Your task to perform on an android device: Open Google Chrome and open the bookmarks view Image 0: 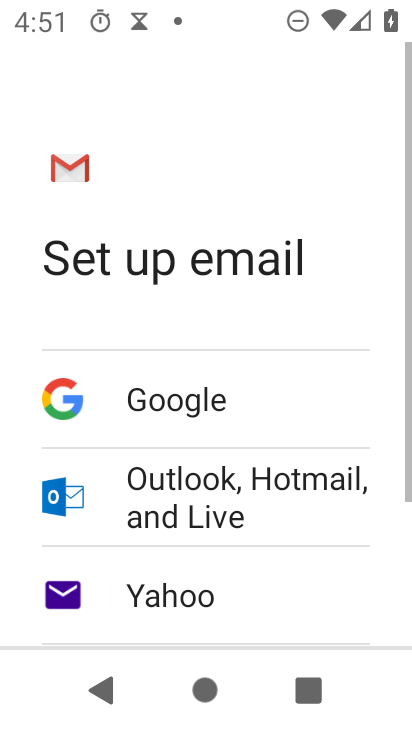
Step 0: press home button
Your task to perform on an android device: Open Google Chrome and open the bookmarks view Image 1: 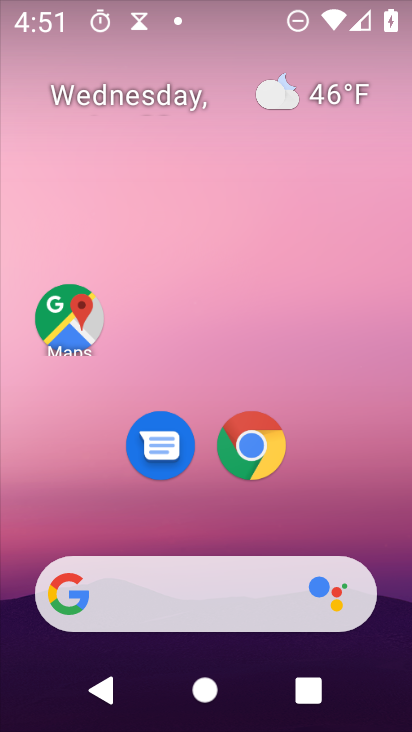
Step 1: click (252, 441)
Your task to perform on an android device: Open Google Chrome and open the bookmarks view Image 2: 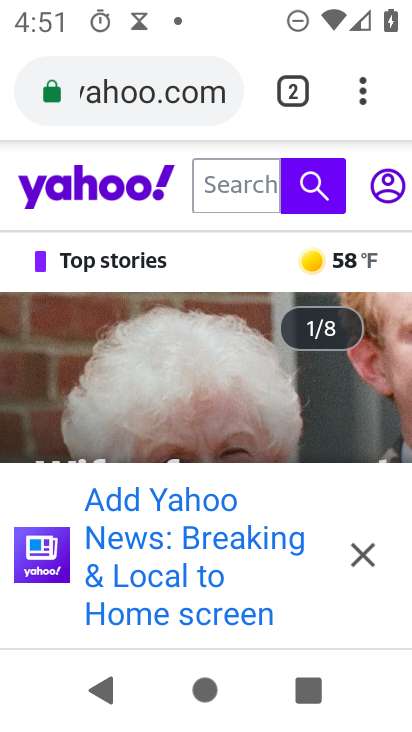
Step 2: click (365, 93)
Your task to perform on an android device: Open Google Chrome and open the bookmarks view Image 3: 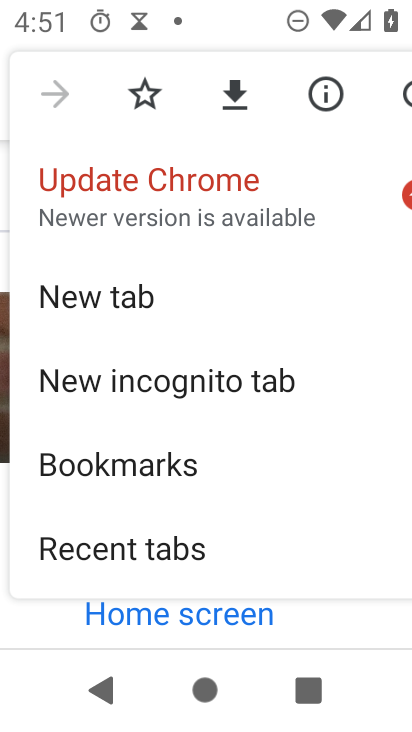
Step 3: drag from (195, 524) to (217, 335)
Your task to perform on an android device: Open Google Chrome and open the bookmarks view Image 4: 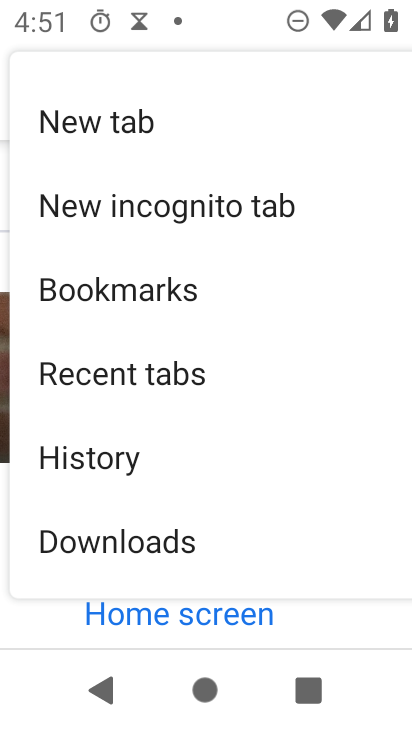
Step 4: drag from (215, 476) to (211, 379)
Your task to perform on an android device: Open Google Chrome and open the bookmarks view Image 5: 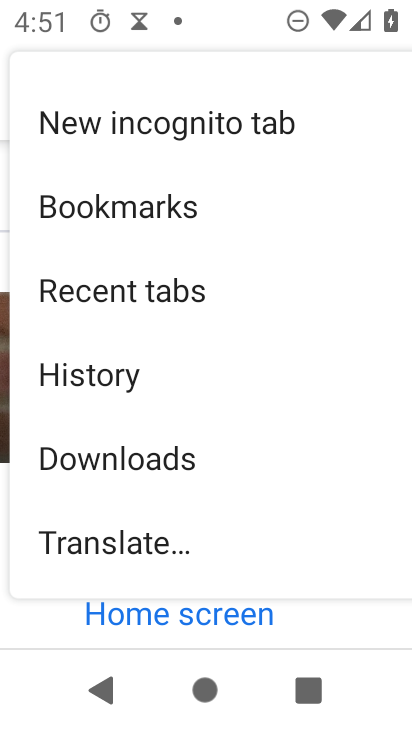
Step 5: click (156, 202)
Your task to perform on an android device: Open Google Chrome and open the bookmarks view Image 6: 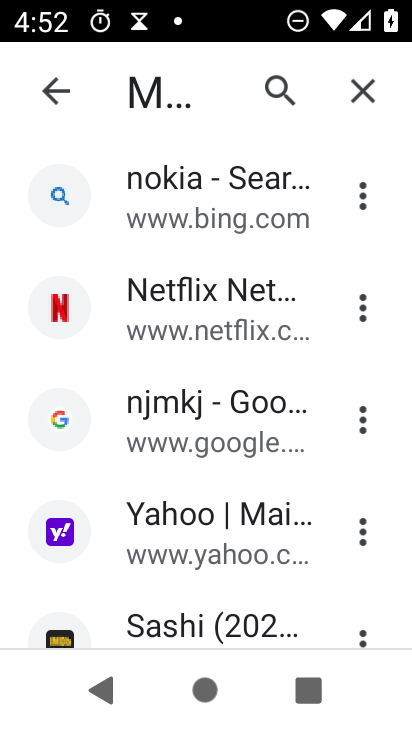
Step 6: task complete